Your task to perform on an android device: toggle translation in the chrome app Image 0: 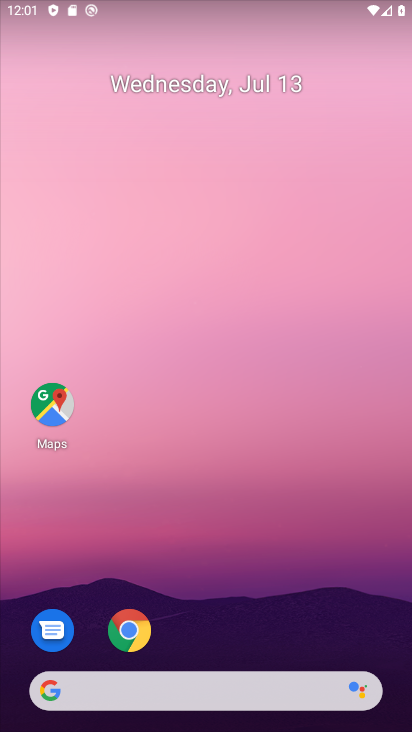
Step 0: press home button
Your task to perform on an android device: toggle translation in the chrome app Image 1: 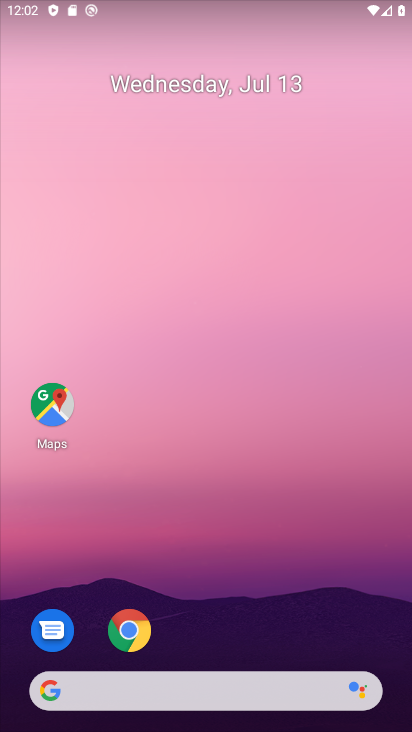
Step 1: click (126, 623)
Your task to perform on an android device: toggle translation in the chrome app Image 2: 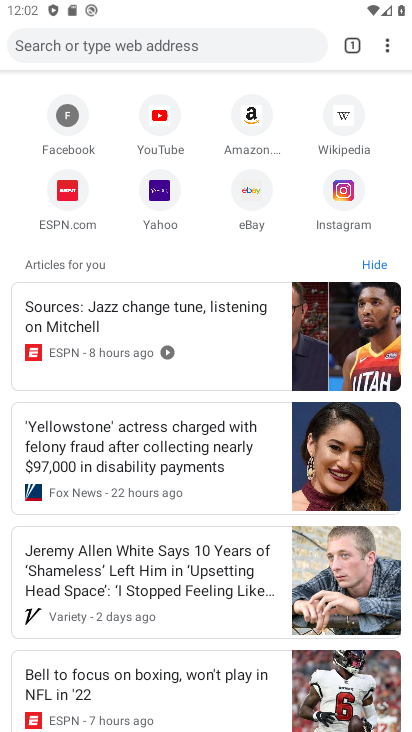
Step 2: click (384, 44)
Your task to perform on an android device: toggle translation in the chrome app Image 3: 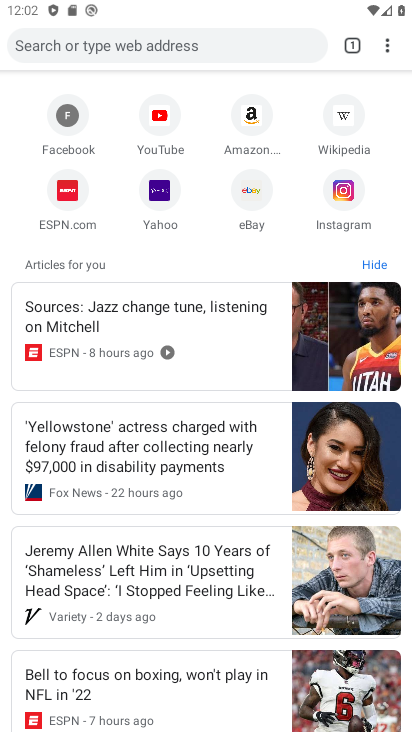
Step 3: click (383, 43)
Your task to perform on an android device: toggle translation in the chrome app Image 4: 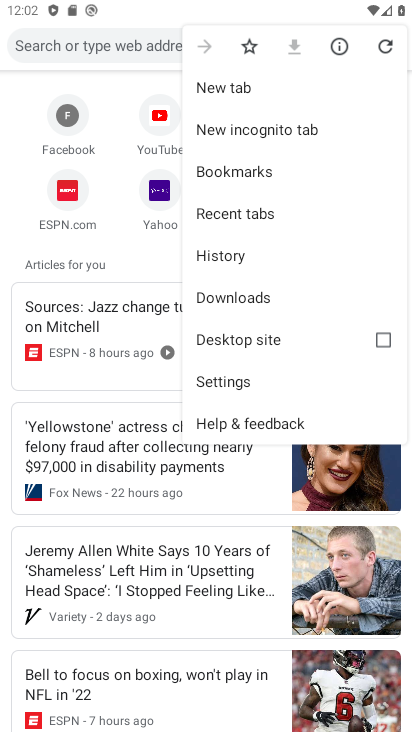
Step 4: click (260, 379)
Your task to perform on an android device: toggle translation in the chrome app Image 5: 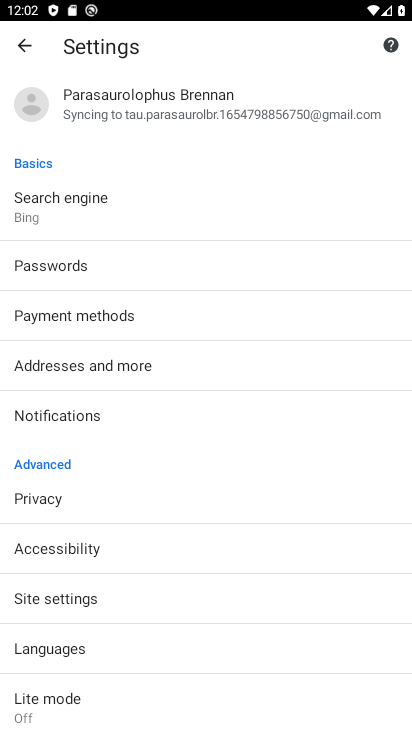
Step 5: click (103, 645)
Your task to perform on an android device: toggle translation in the chrome app Image 6: 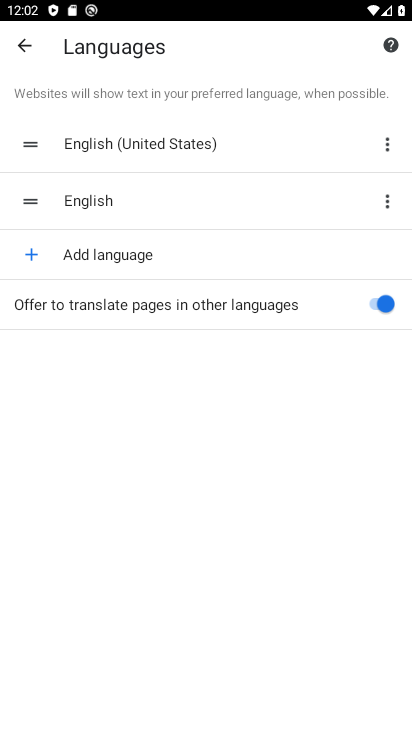
Step 6: click (374, 301)
Your task to perform on an android device: toggle translation in the chrome app Image 7: 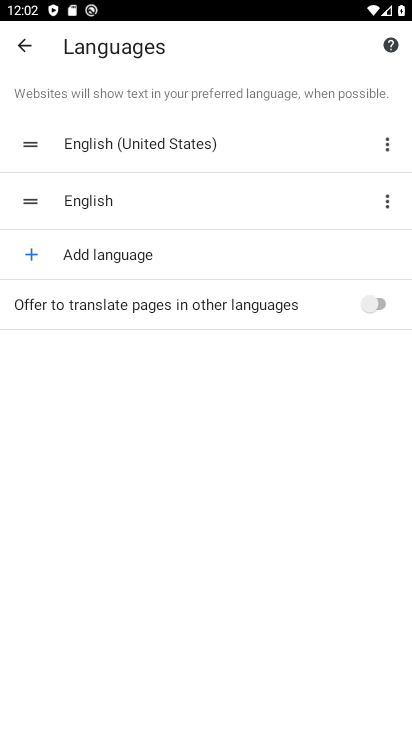
Step 7: task complete